Your task to perform on an android device: Open Google Chrome and open the bookmarks view Image 0: 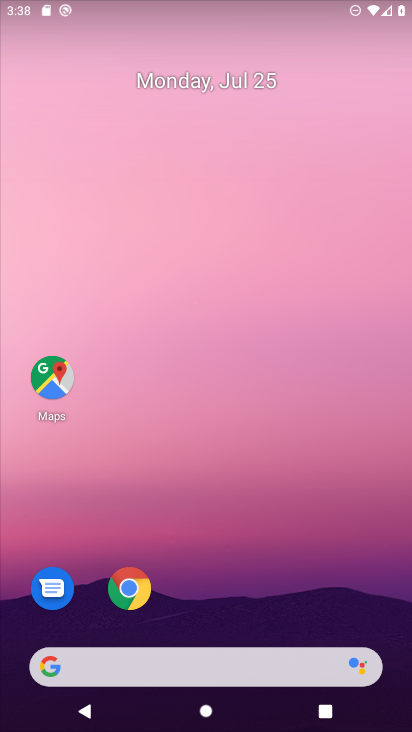
Step 0: press back button
Your task to perform on an android device: Open Google Chrome and open the bookmarks view Image 1: 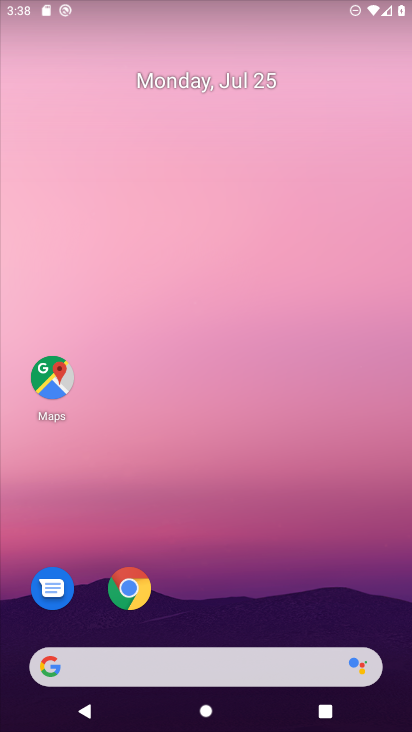
Step 1: drag from (177, 0) to (275, 36)
Your task to perform on an android device: Open Google Chrome and open the bookmarks view Image 2: 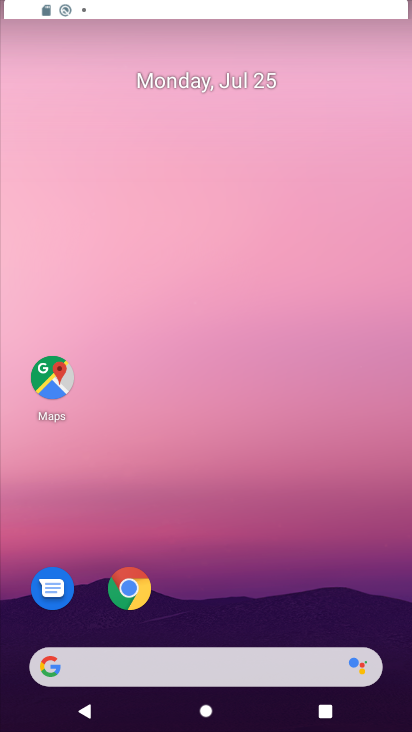
Step 2: drag from (270, 366) to (270, 9)
Your task to perform on an android device: Open Google Chrome and open the bookmarks view Image 3: 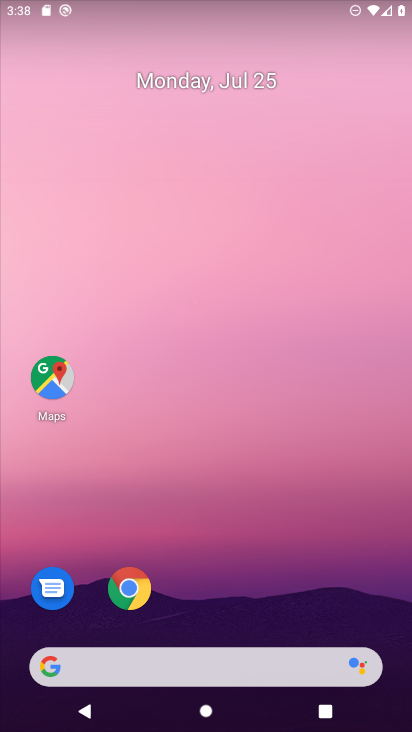
Step 3: drag from (207, 429) to (208, 178)
Your task to perform on an android device: Open Google Chrome and open the bookmarks view Image 4: 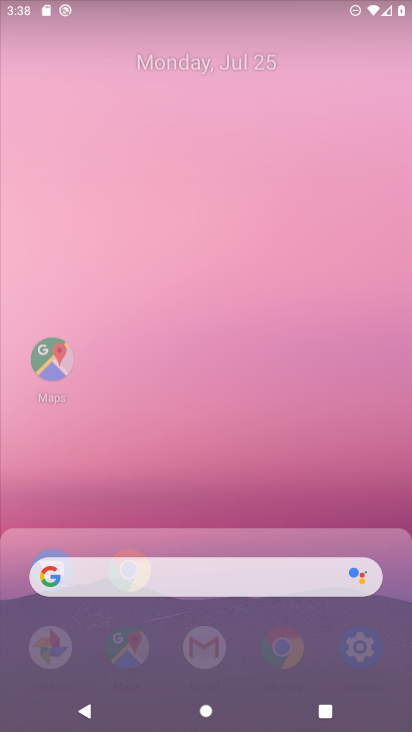
Step 4: drag from (300, 459) to (266, 39)
Your task to perform on an android device: Open Google Chrome and open the bookmarks view Image 5: 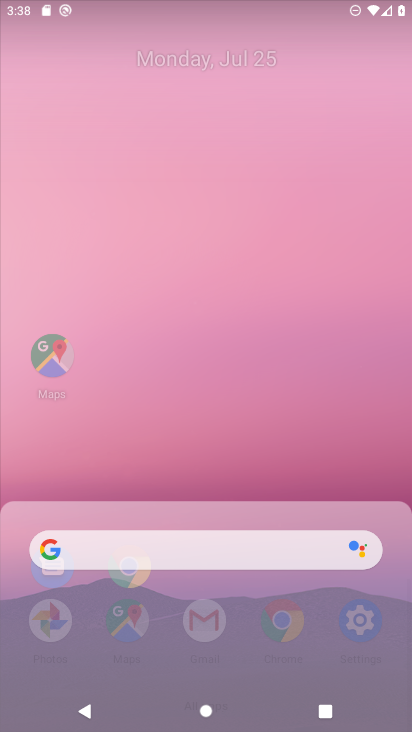
Step 5: drag from (276, 354) to (209, 5)
Your task to perform on an android device: Open Google Chrome and open the bookmarks view Image 6: 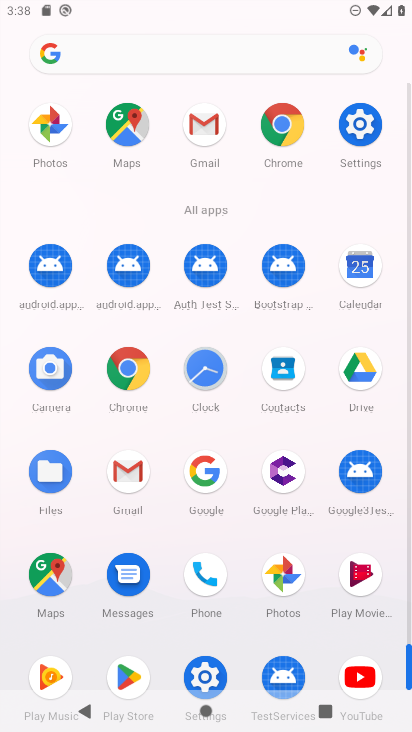
Step 6: click (273, 124)
Your task to perform on an android device: Open Google Chrome and open the bookmarks view Image 7: 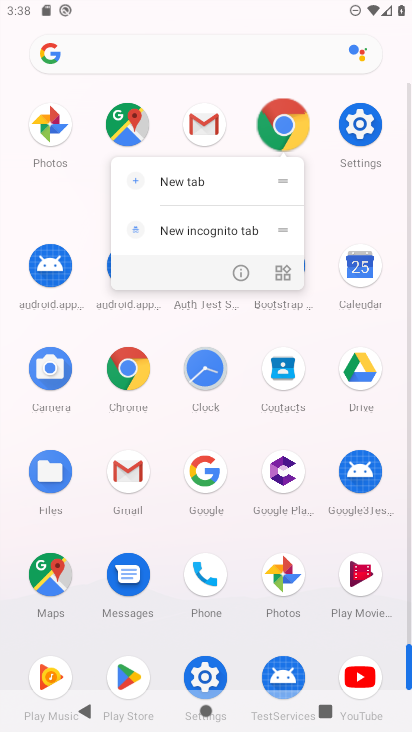
Step 7: click (285, 116)
Your task to perform on an android device: Open Google Chrome and open the bookmarks view Image 8: 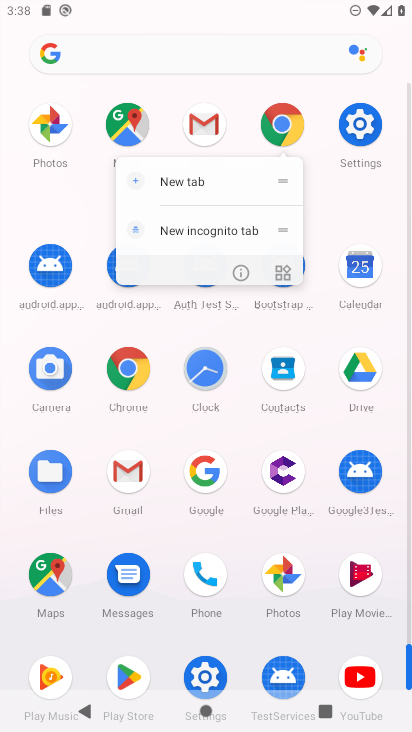
Step 8: click (284, 119)
Your task to perform on an android device: Open Google Chrome and open the bookmarks view Image 9: 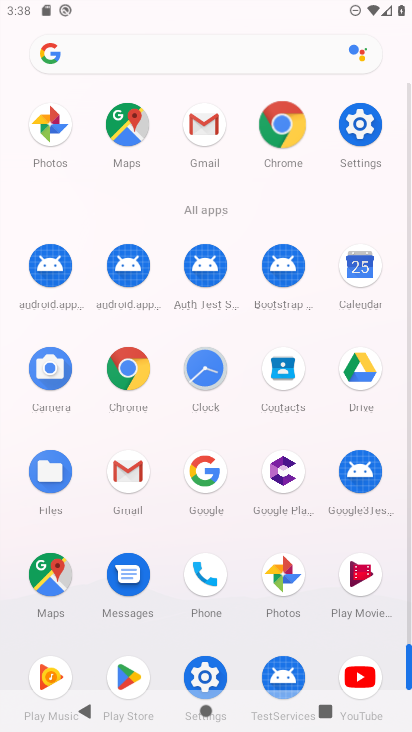
Step 9: click (284, 119)
Your task to perform on an android device: Open Google Chrome and open the bookmarks view Image 10: 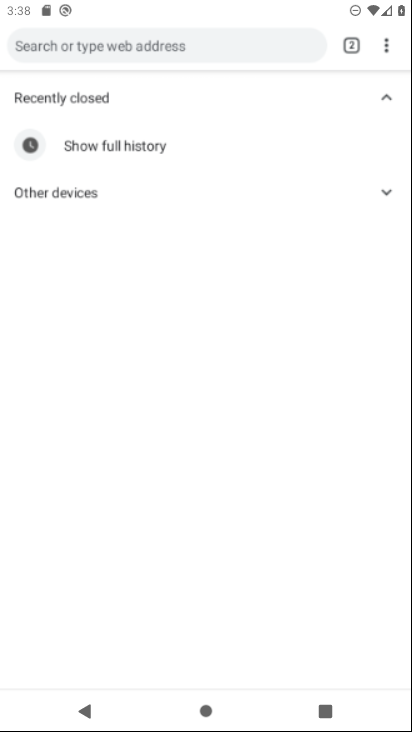
Step 10: click (285, 115)
Your task to perform on an android device: Open Google Chrome and open the bookmarks view Image 11: 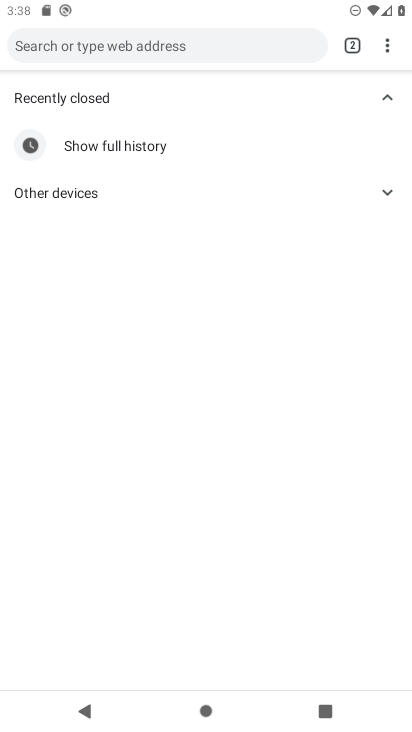
Step 11: drag from (385, 45) to (211, 178)
Your task to perform on an android device: Open Google Chrome and open the bookmarks view Image 12: 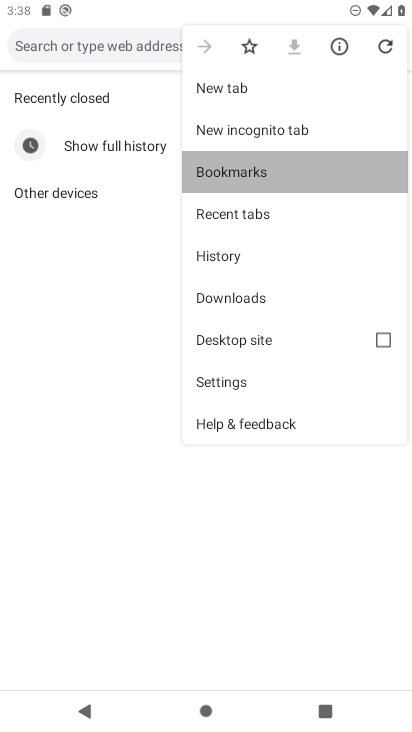
Step 12: click (221, 179)
Your task to perform on an android device: Open Google Chrome and open the bookmarks view Image 13: 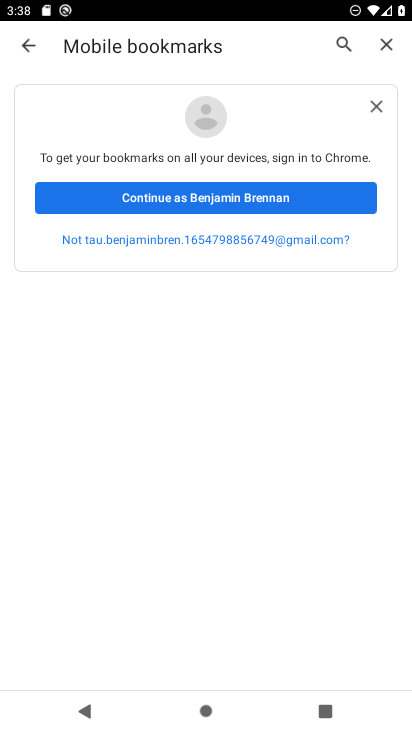
Step 13: task complete